Your task to perform on an android device: delete browsing data in the chrome app Image 0: 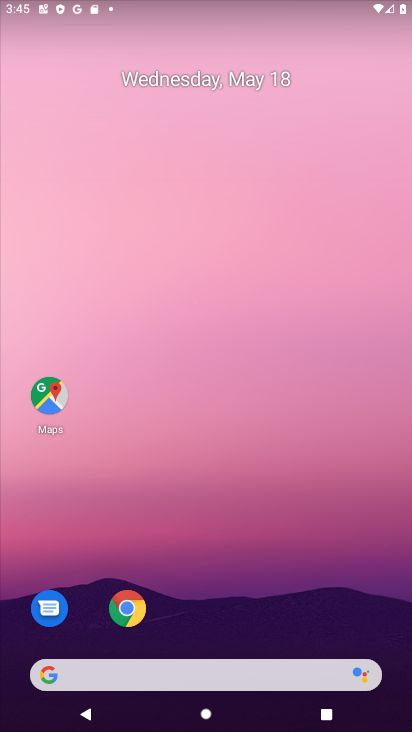
Step 0: click (123, 613)
Your task to perform on an android device: delete browsing data in the chrome app Image 1: 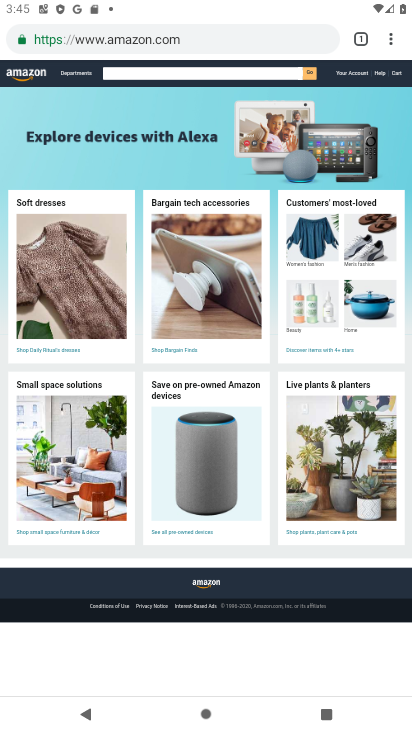
Step 1: drag from (389, 44) to (279, 215)
Your task to perform on an android device: delete browsing data in the chrome app Image 2: 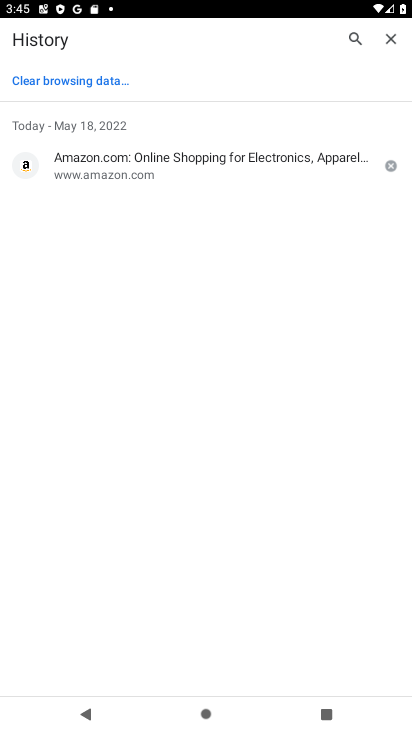
Step 2: click (83, 81)
Your task to perform on an android device: delete browsing data in the chrome app Image 3: 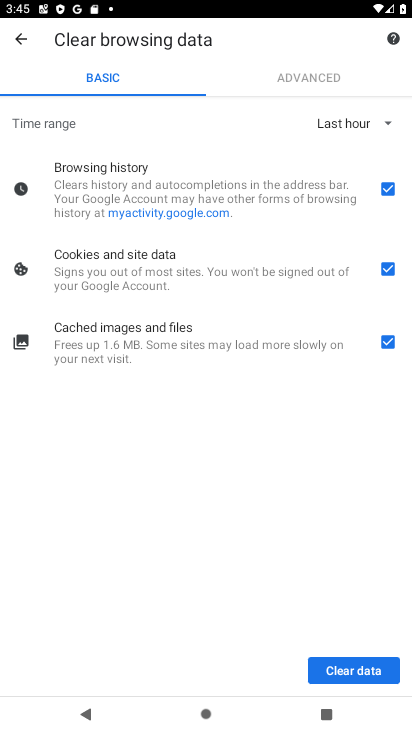
Step 3: click (387, 272)
Your task to perform on an android device: delete browsing data in the chrome app Image 4: 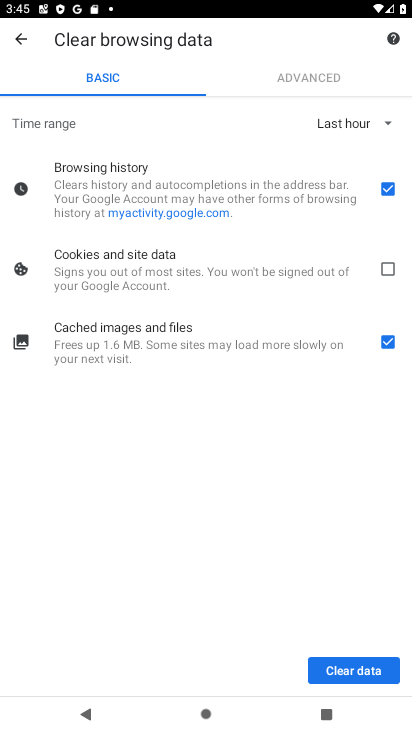
Step 4: click (383, 346)
Your task to perform on an android device: delete browsing data in the chrome app Image 5: 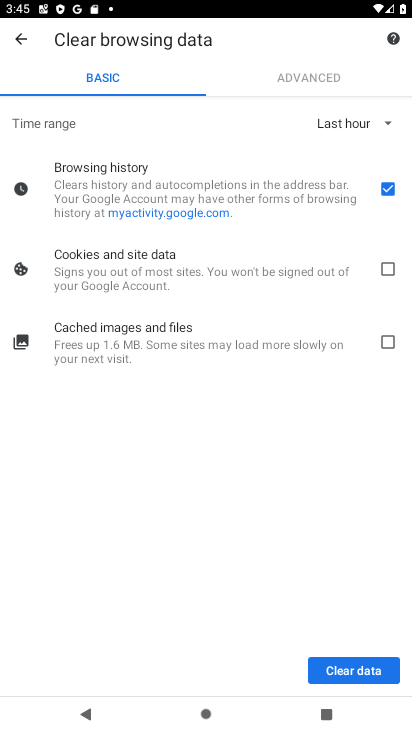
Step 5: click (357, 668)
Your task to perform on an android device: delete browsing data in the chrome app Image 6: 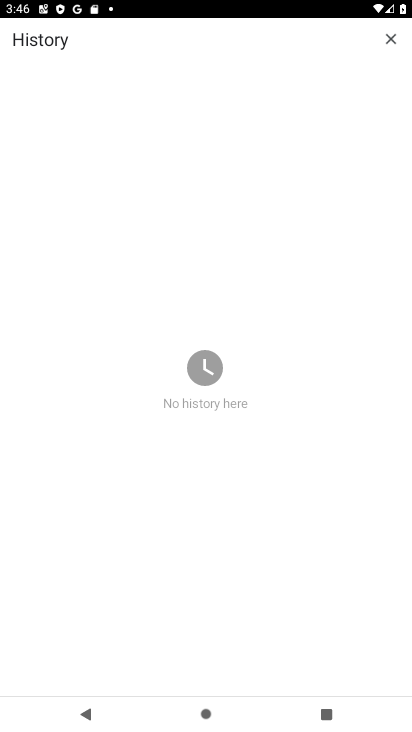
Step 6: task complete